Your task to perform on an android device: turn on notifications settings in the gmail app Image 0: 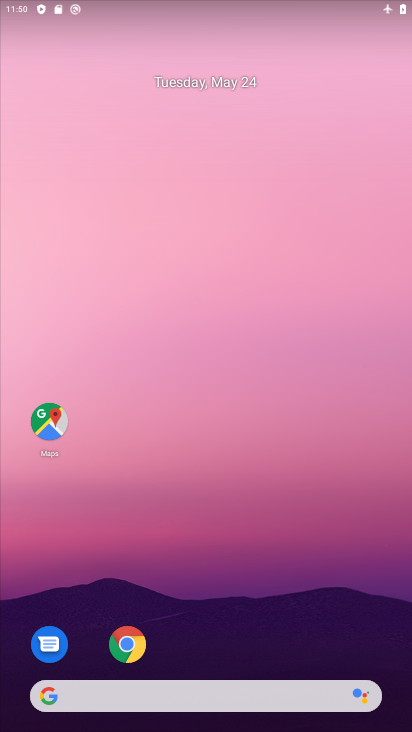
Step 0: drag from (257, 558) to (207, 168)
Your task to perform on an android device: turn on notifications settings in the gmail app Image 1: 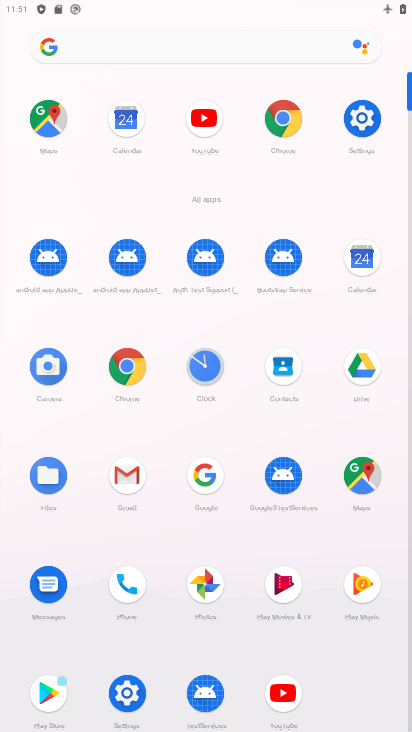
Step 1: click (137, 473)
Your task to perform on an android device: turn on notifications settings in the gmail app Image 2: 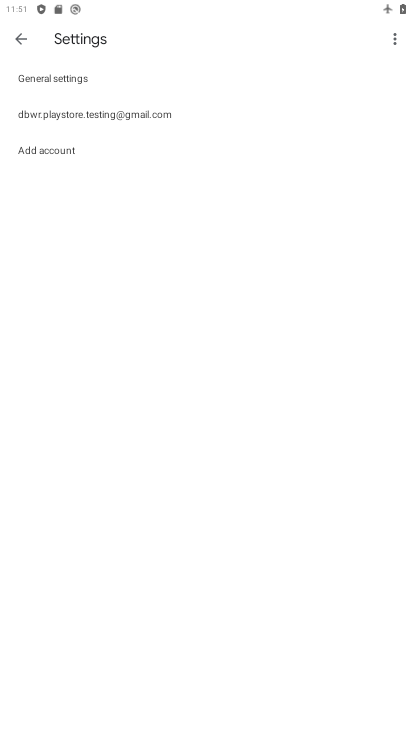
Step 2: click (36, 76)
Your task to perform on an android device: turn on notifications settings in the gmail app Image 3: 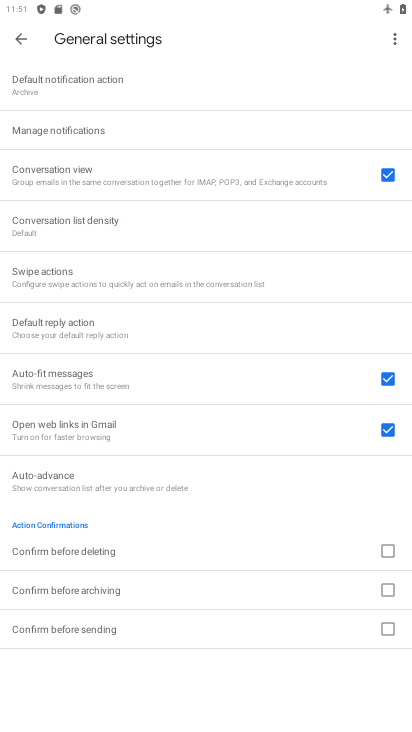
Step 3: click (83, 136)
Your task to perform on an android device: turn on notifications settings in the gmail app Image 4: 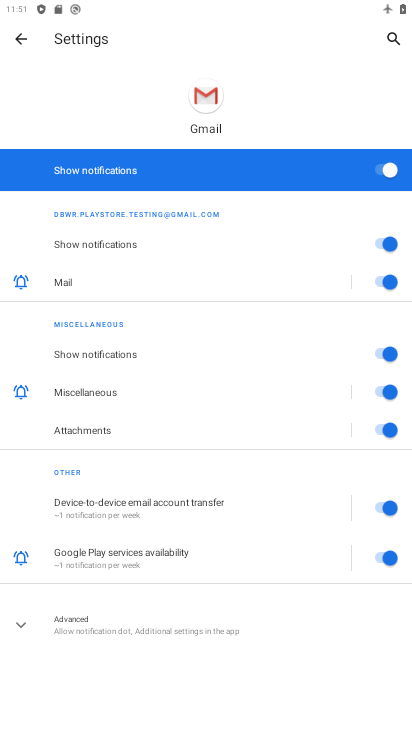
Step 4: press home button
Your task to perform on an android device: turn on notifications settings in the gmail app Image 5: 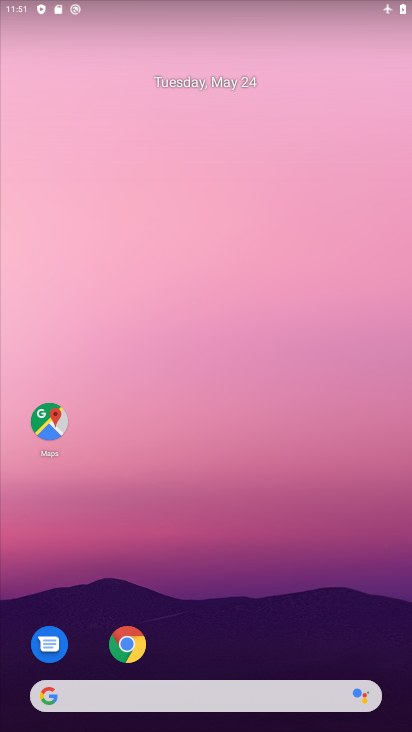
Step 5: drag from (232, 501) to (159, 157)
Your task to perform on an android device: turn on notifications settings in the gmail app Image 6: 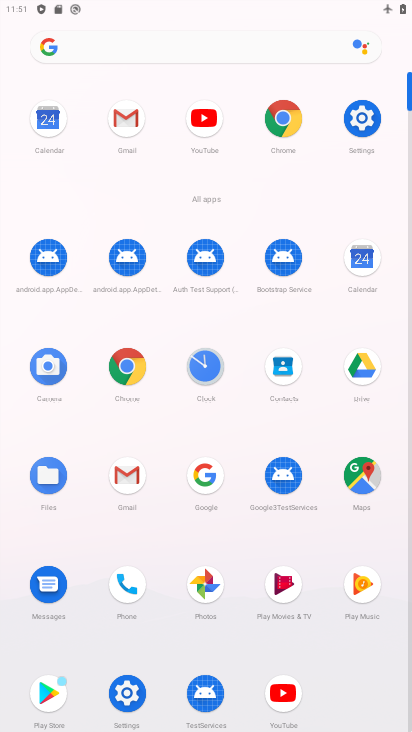
Step 6: click (127, 118)
Your task to perform on an android device: turn on notifications settings in the gmail app Image 7: 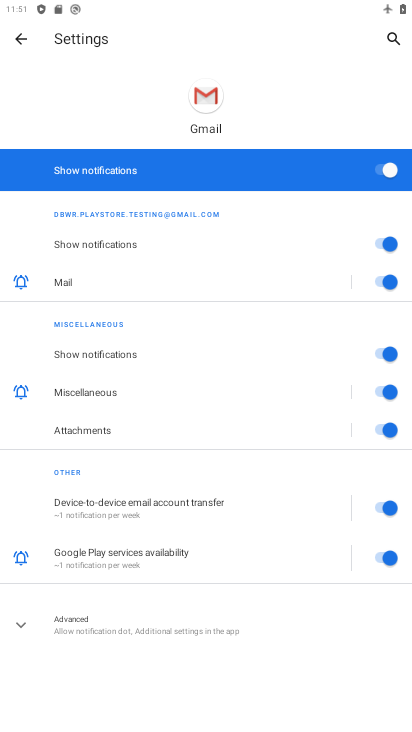
Step 7: task complete